Your task to perform on an android device: toggle location history Image 0: 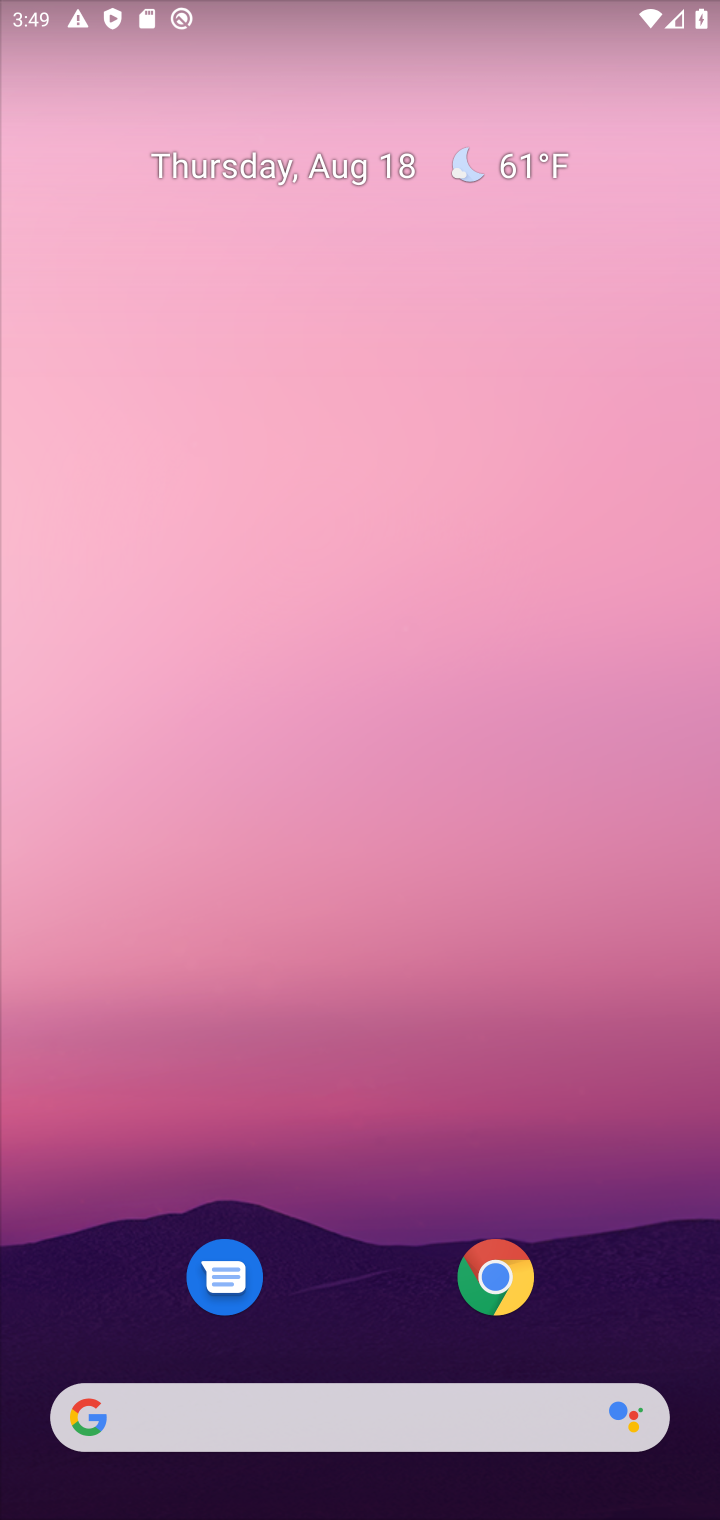
Step 0: drag from (356, 1156) to (590, 96)
Your task to perform on an android device: toggle location history Image 1: 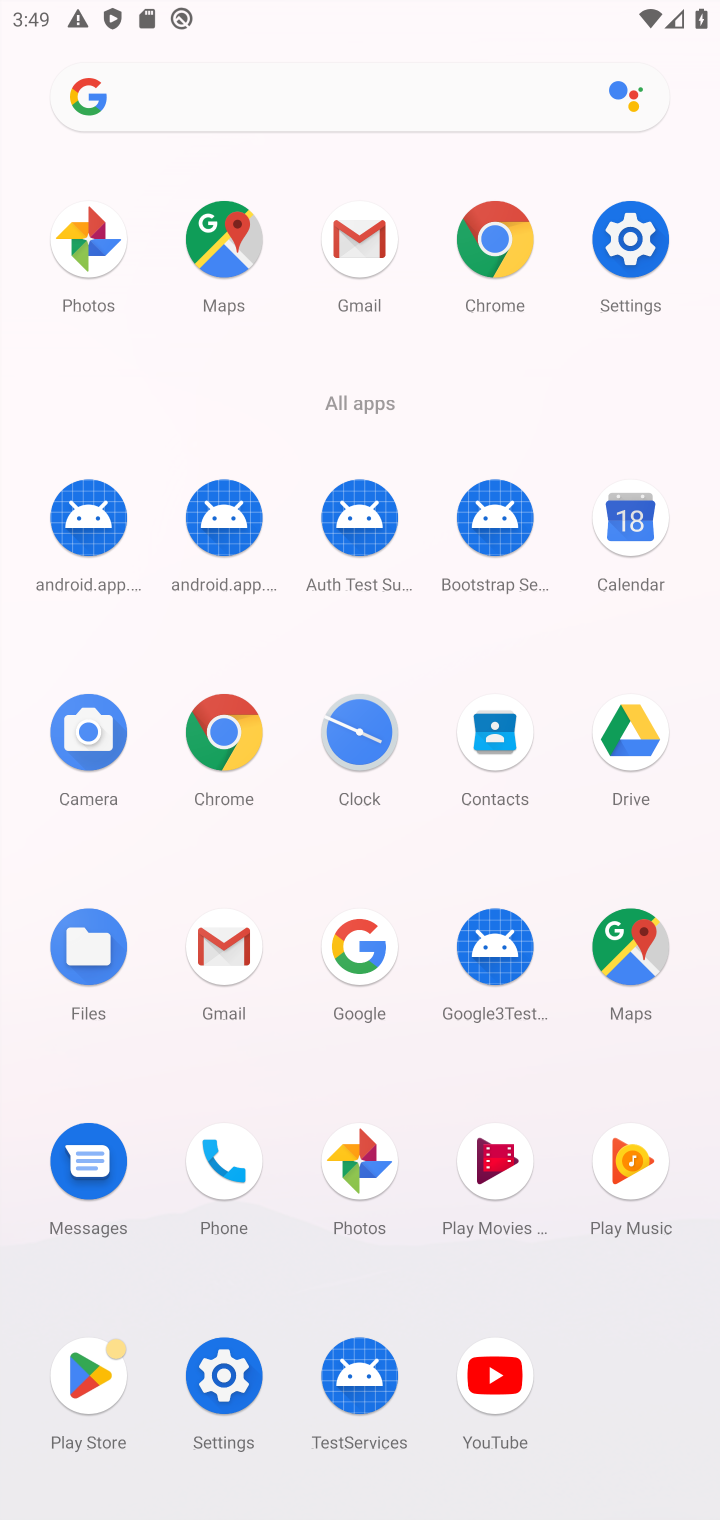
Step 1: task complete